Your task to perform on an android device: turn on improve location accuracy Image 0: 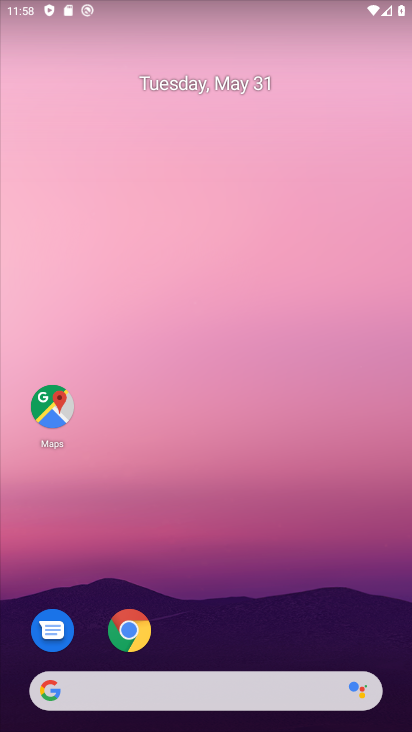
Step 0: drag from (373, 641) to (376, 216)
Your task to perform on an android device: turn on improve location accuracy Image 1: 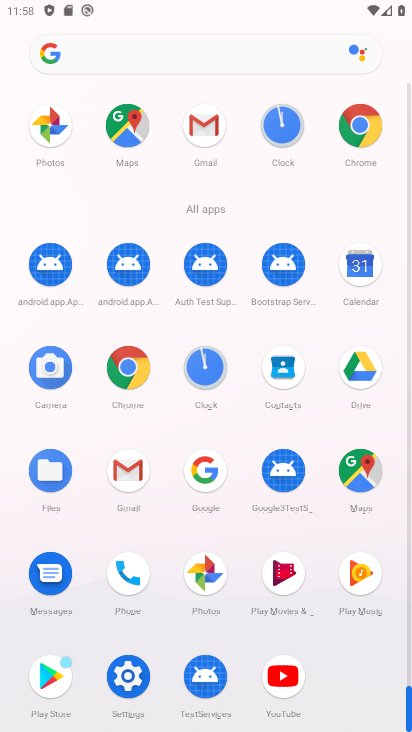
Step 1: click (135, 672)
Your task to perform on an android device: turn on improve location accuracy Image 2: 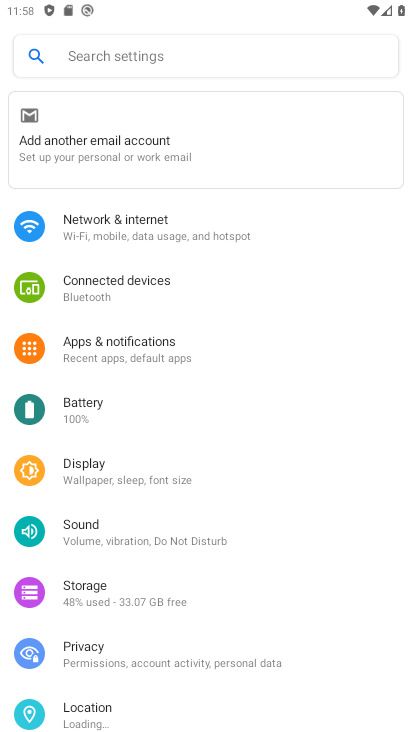
Step 2: drag from (315, 538) to (327, 435)
Your task to perform on an android device: turn on improve location accuracy Image 3: 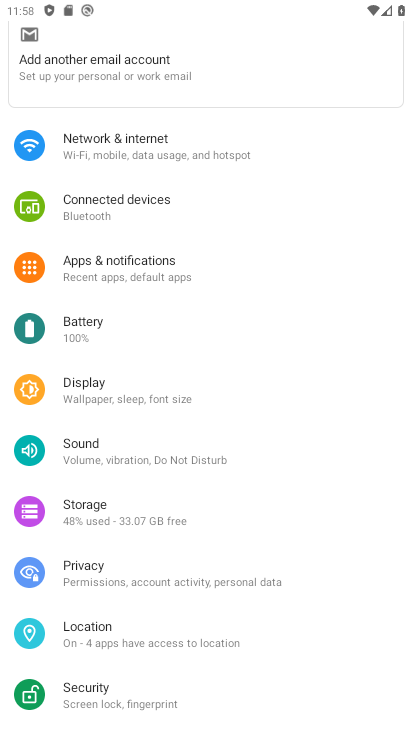
Step 3: drag from (327, 560) to (345, 430)
Your task to perform on an android device: turn on improve location accuracy Image 4: 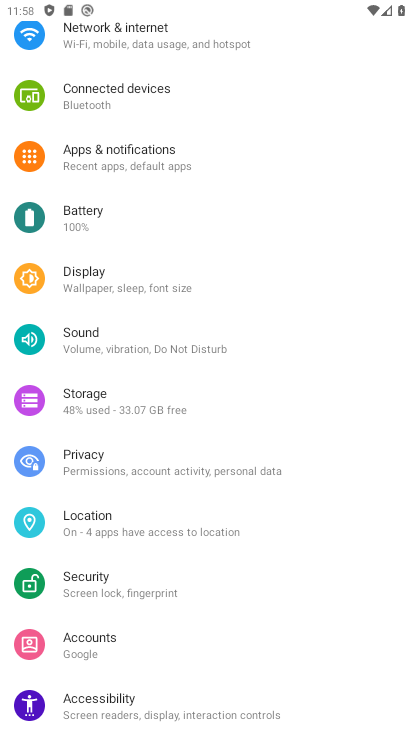
Step 4: drag from (333, 566) to (330, 439)
Your task to perform on an android device: turn on improve location accuracy Image 5: 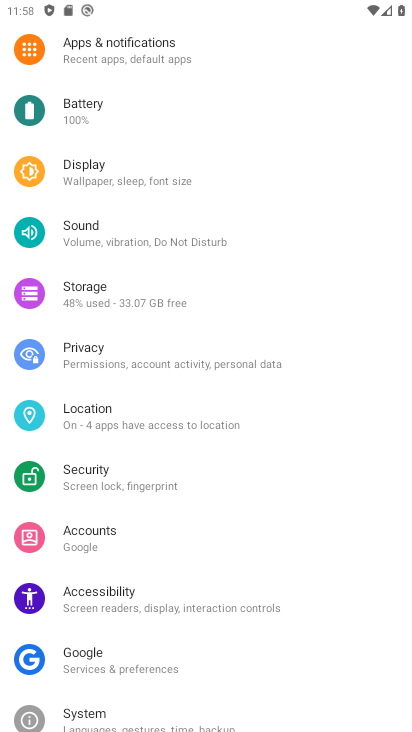
Step 5: drag from (340, 585) to (330, 414)
Your task to perform on an android device: turn on improve location accuracy Image 6: 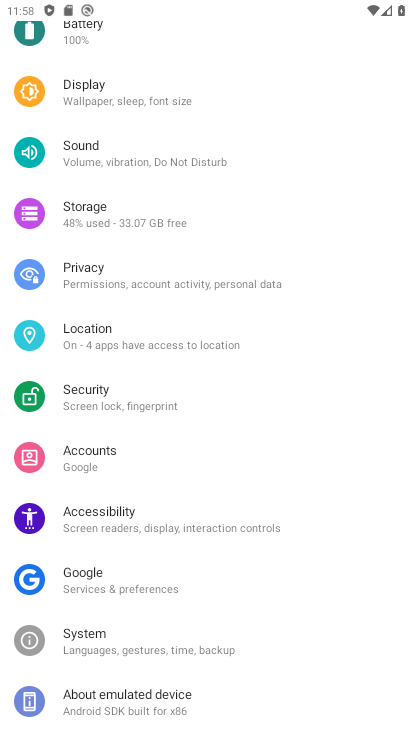
Step 6: drag from (316, 610) to (313, 448)
Your task to perform on an android device: turn on improve location accuracy Image 7: 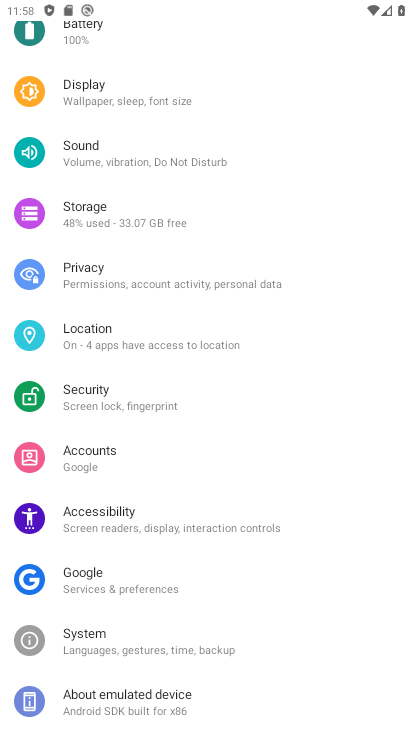
Step 7: drag from (311, 325) to (313, 424)
Your task to perform on an android device: turn on improve location accuracy Image 8: 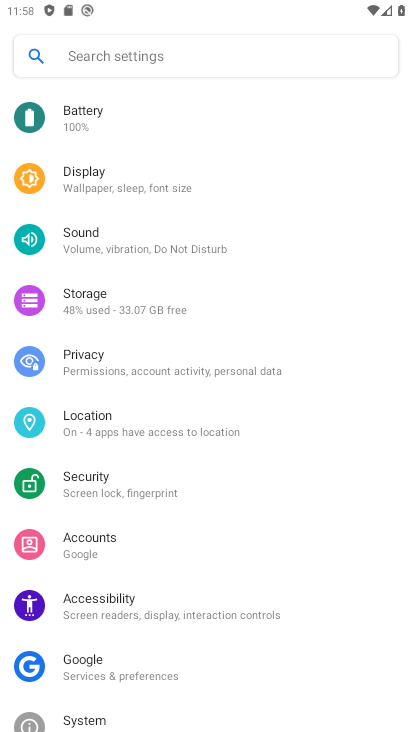
Step 8: drag from (319, 303) to (327, 412)
Your task to perform on an android device: turn on improve location accuracy Image 9: 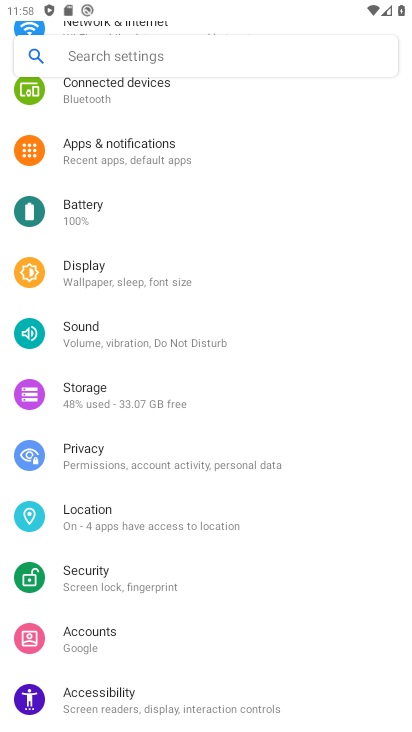
Step 9: drag from (338, 253) to (346, 404)
Your task to perform on an android device: turn on improve location accuracy Image 10: 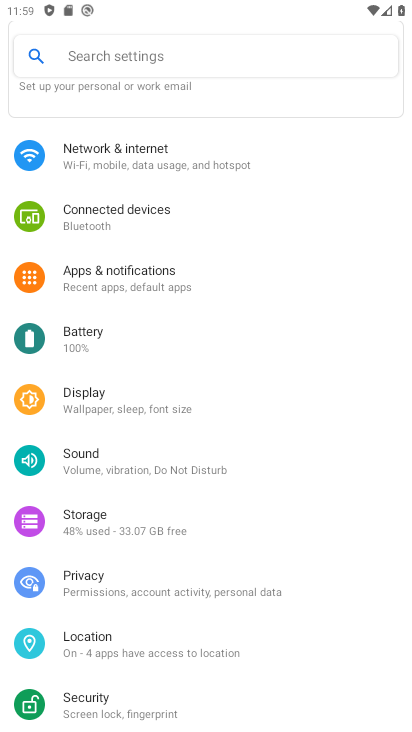
Step 10: drag from (338, 212) to (356, 384)
Your task to perform on an android device: turn on improve location accuracy Image 11: 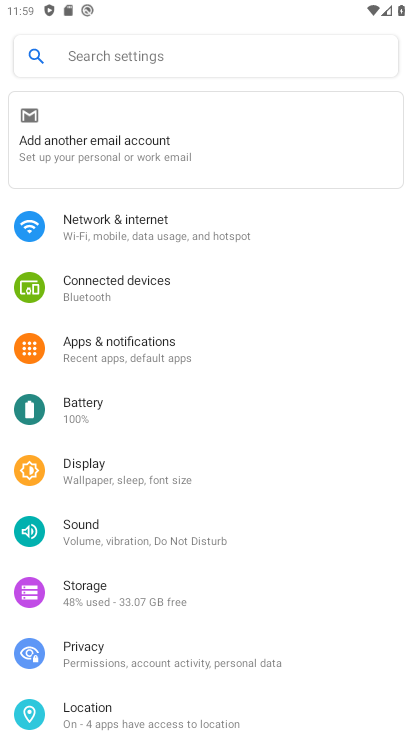
Step 11: drag from (316, 452) to (314, 280)
Your task to perform on an android device: turn on improve location accuracy Image 12: 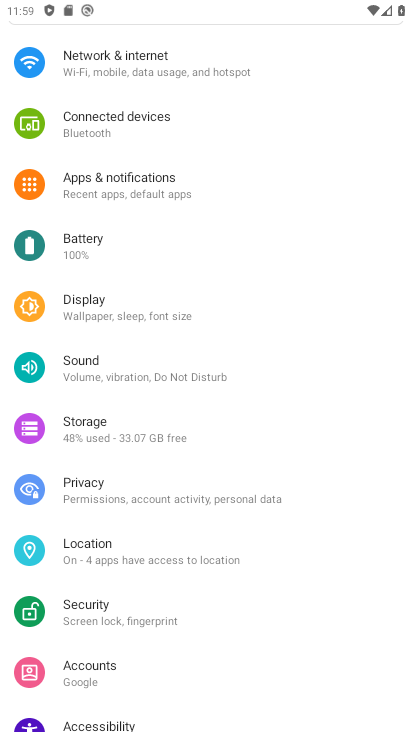
Step 12: drag from (331, 535) to (333, 359)
Your task to perform on an android device: turn on improve location accuracy Image 13: 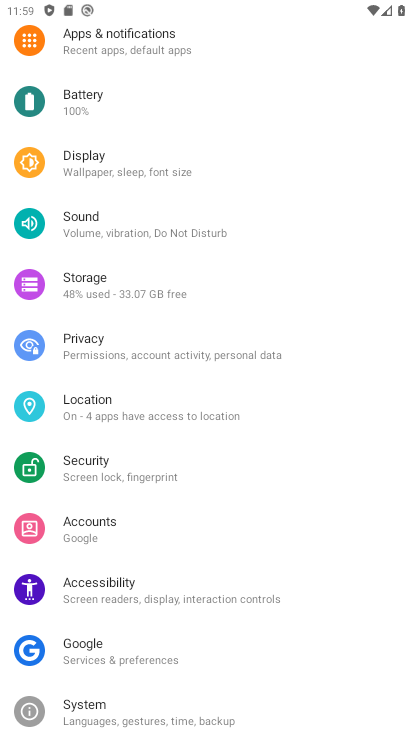
Step 13: click (186, 408)
Your task to perform on an android device: turn on improve location accuracy Image 14: 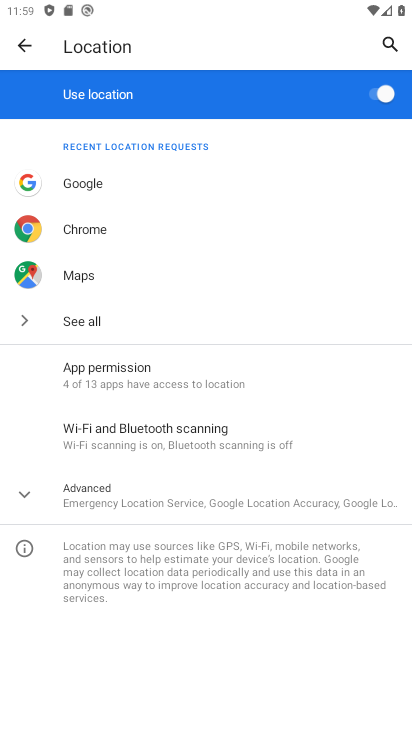
Step 14: click (168, 493)
Your task to perform on an android device: turn on improve location accuracy Image 15: 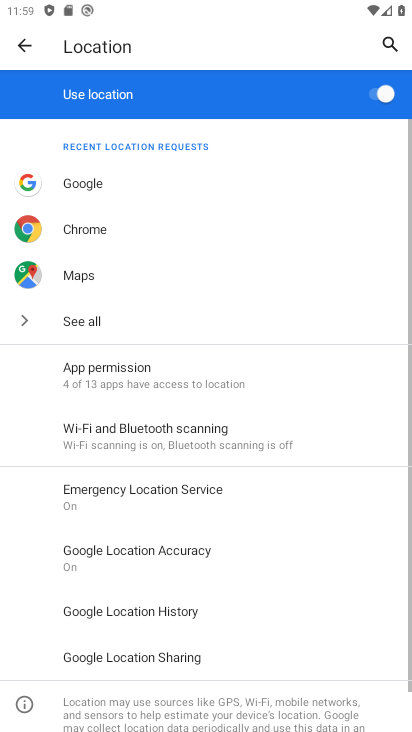
Step 15: drag from (291, 547) to (304, 359)
Your task to perform on an android device: turn on improve location accuracy Image 16: 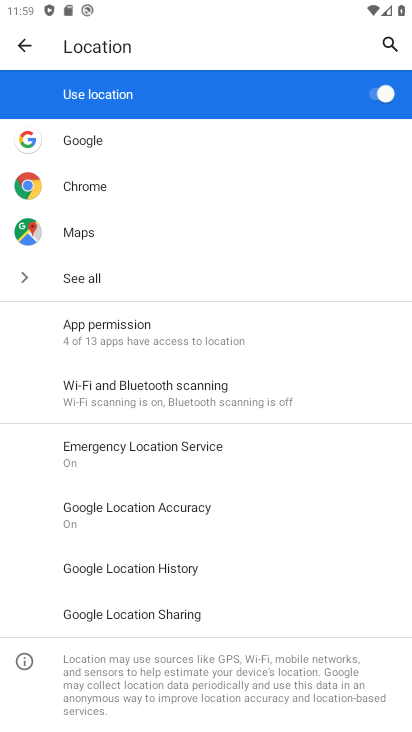
Step 16: click (165, 509)
Your task to perform on an android device: turn on improve location accuracy Image 17: 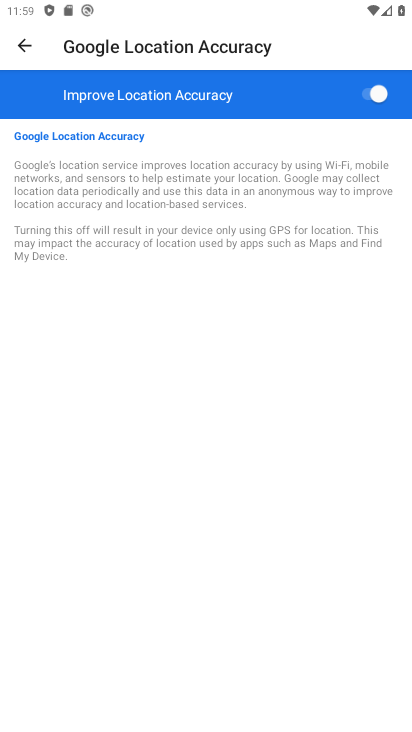
Step 17: task complete